Your task to perform on an android device: What is the capital of Germany? Image 0: 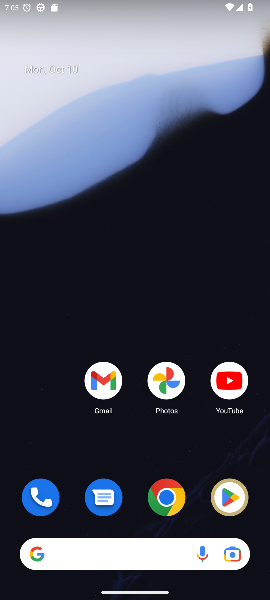
Step 0: drag from (109, 472) to (119, 203)
Your task to perform on an android device: What is the capital of Germany? Image 1: 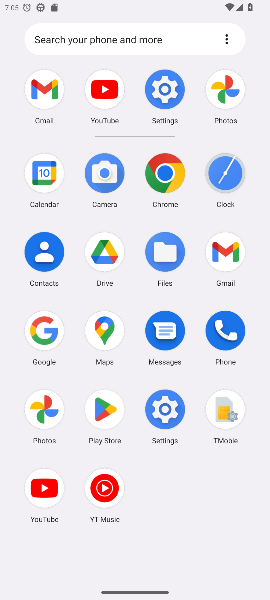
Step 1: click (43, 329)
Your task to perform on an android device: What is the capital of Germany? Image 2: 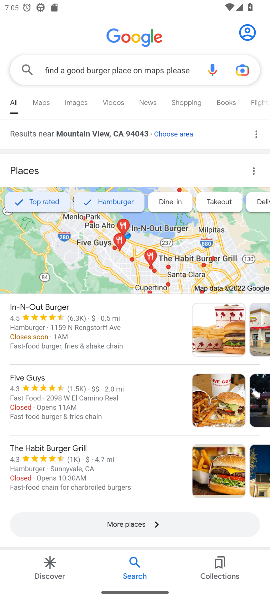
Step 2: click (156, 61)
Your task to perform on an android device: What is the capital of Germany? Image 3: 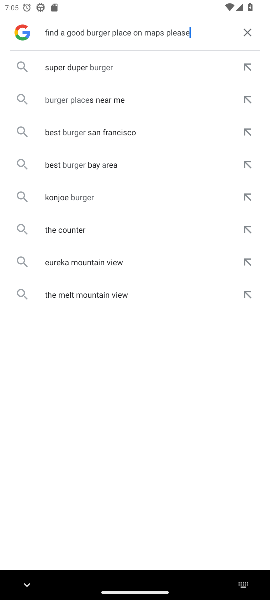
Step 3: click (253, 29)
Your task to perform on an android device: What is the capital of Germany? Image 4: 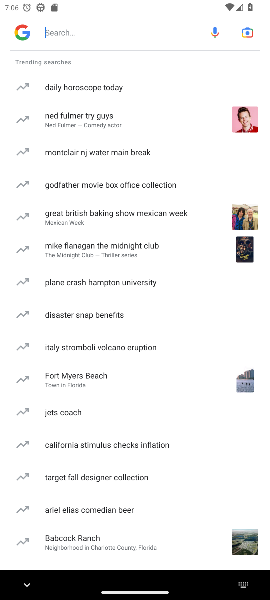
Step 4: click (95, 33)
Your task to perform on an android device: What is the capital of Germany? Image 5: 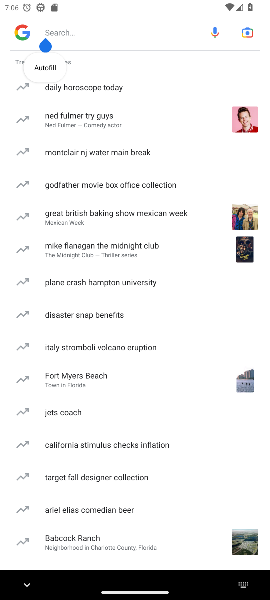
Step 5: type "What is the capital of Germany? "
Your task to perform on an android device: What is the capital of Germany? Image 6: 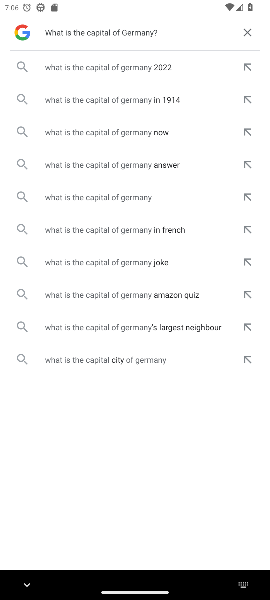
Step 6: click (132, 71)
Your task to perform on an android device: What is the capital of Germany? Image 7: 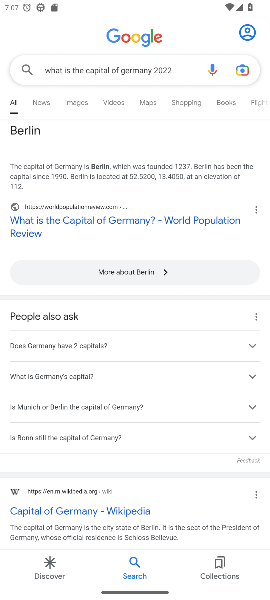
Step 7: task complete